Your task to perform on an android device: Is it going to rain tomorrow? Image 0: 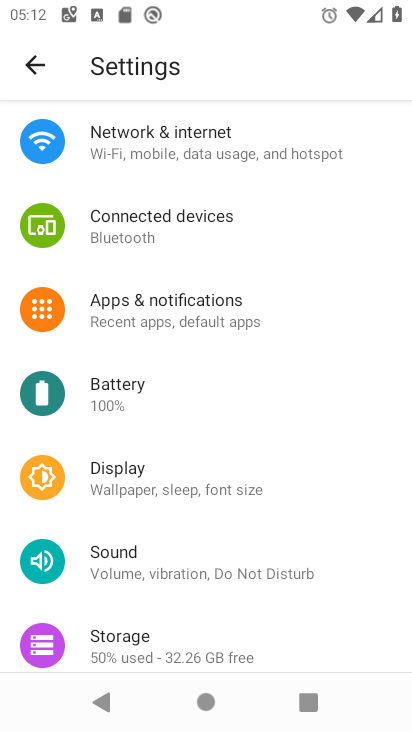
Step 0: press home button
Your task to perform on an android device: Is it going to rain tomorrow? Image 1: 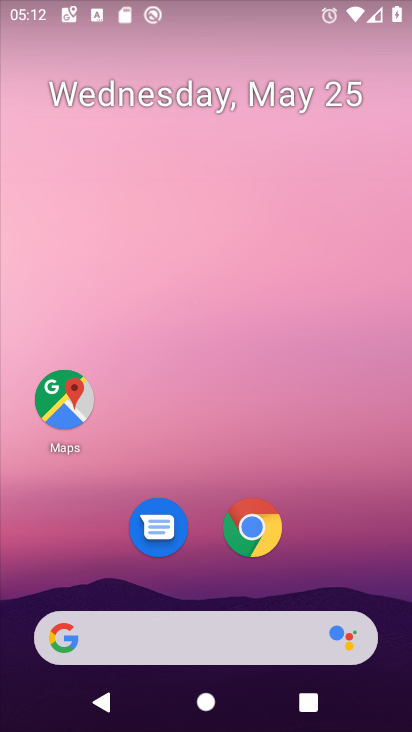
Step 1: drag from (313, 538) to (296, 88)
Your task to perform on an android device: Is it going to rain tomorrow? Image 2: 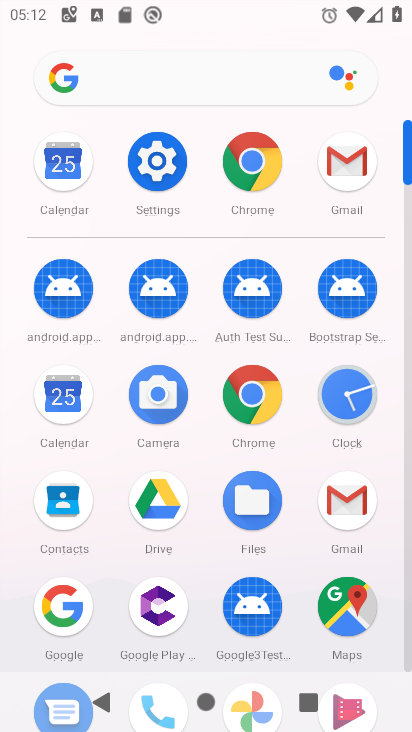
Step 2: click (263, 187)
Your task to perform on an android device: Is it going to rain tomorrow? Image 3: 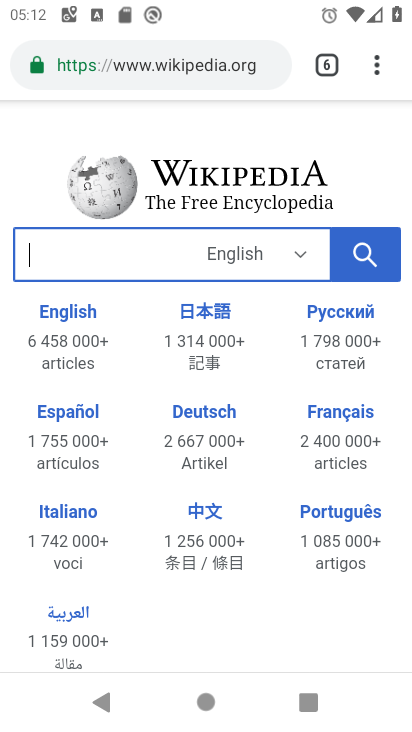
Step 3: click (266, 58)
Your task to perform on an android device: Is it going to rain tomorrow? Image 4: 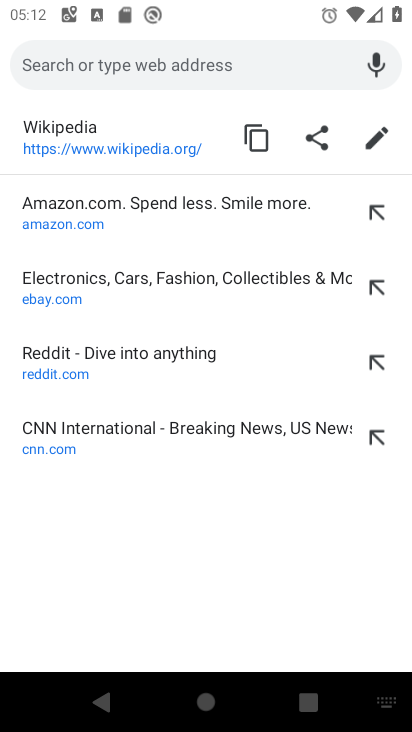
Step 4: type "is it going to rain tomorrow"
Your task to perform on an android device: Is it going to rain tomorrow? Image 5: 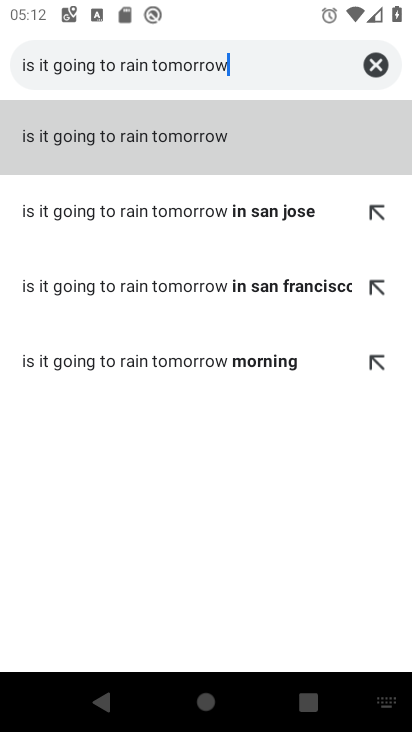
Step 5: click (138, 157)
Your task to perform on an android device: Is it going to rain tomorrow? Image 6: 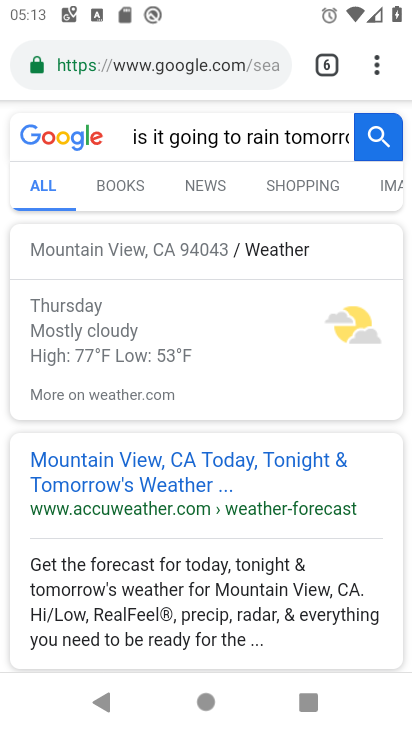
Step 6: task complete